Your task to perform on an android device: Go to settings Image 0: 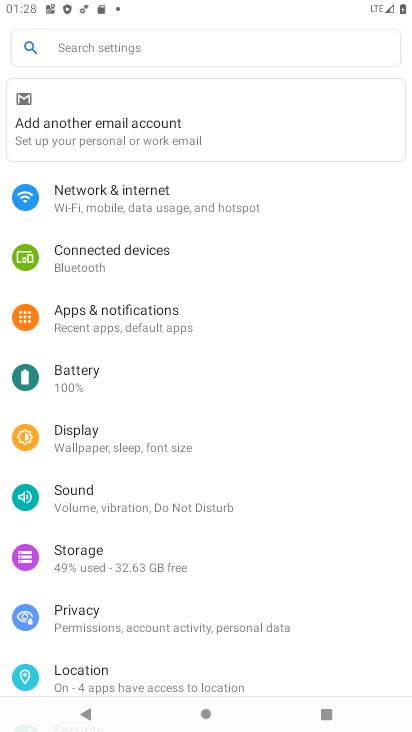
Step 0: drag from (318, 567) to (277, 301)
Your task to perform on an android device: Go to settings Image 1: 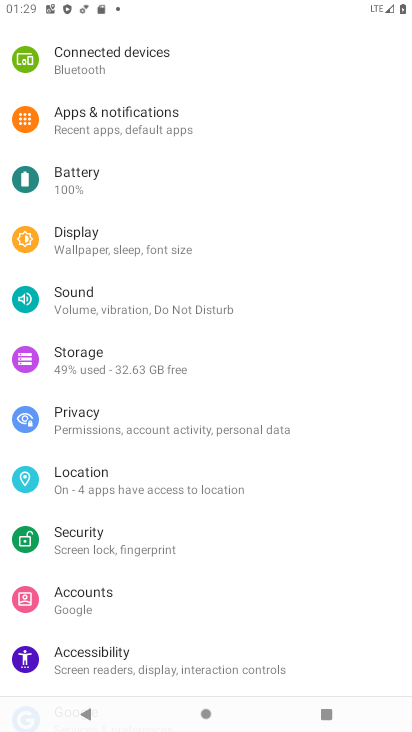
Step 1: task complete